Your task to perform on an android device: Open ESPN.com Image 0: 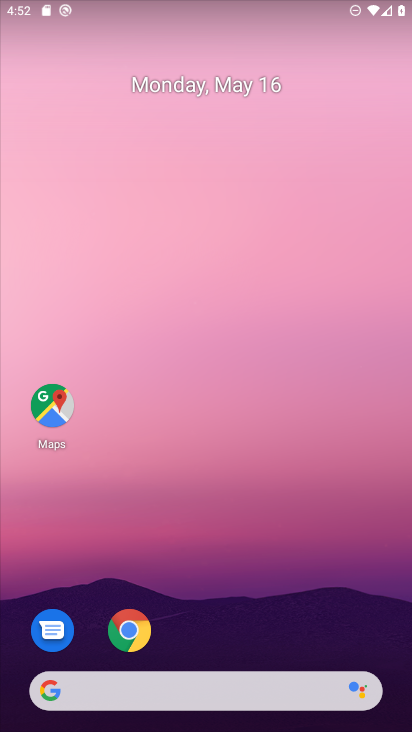
Step 0: press home button
Your task to perform on an android device: Open ESPN.com Image 1: 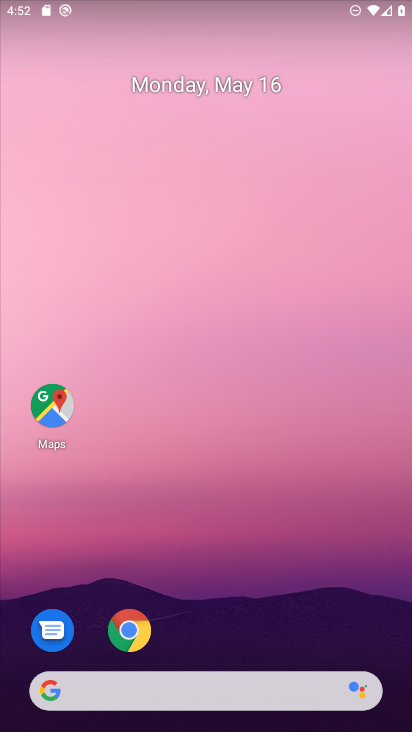
Step 1: click (139, 640)
Your task to perform on an android device: Open ESPN.com Image 2: 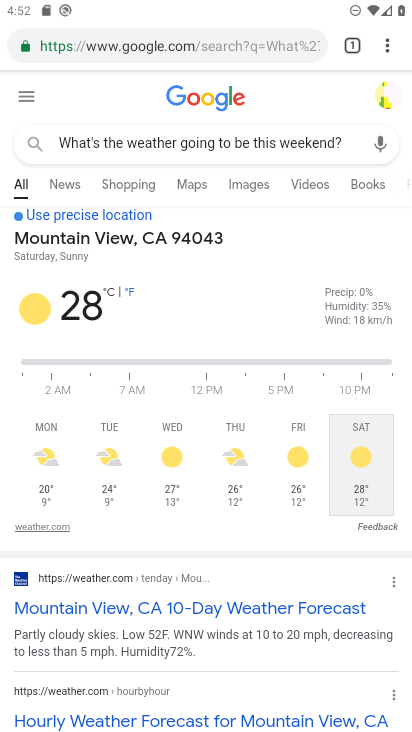
Step 2: click (309, 45)
Your task to perform on an android device: Open ESPN.com Image 3: 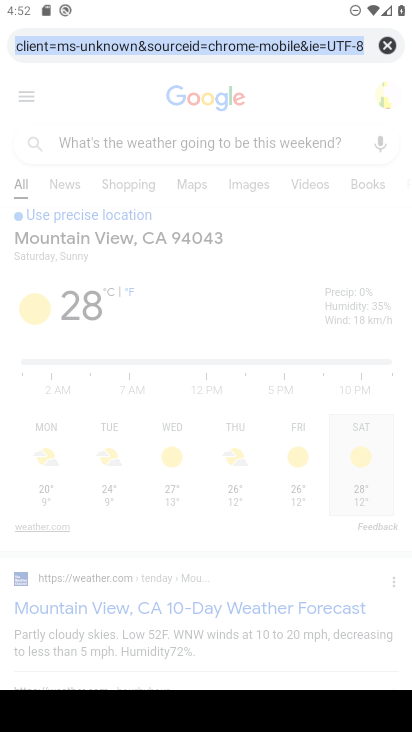
Step 3: click (377, 44)
Your task to perform on an android device: Open ESPN.com Image 4: 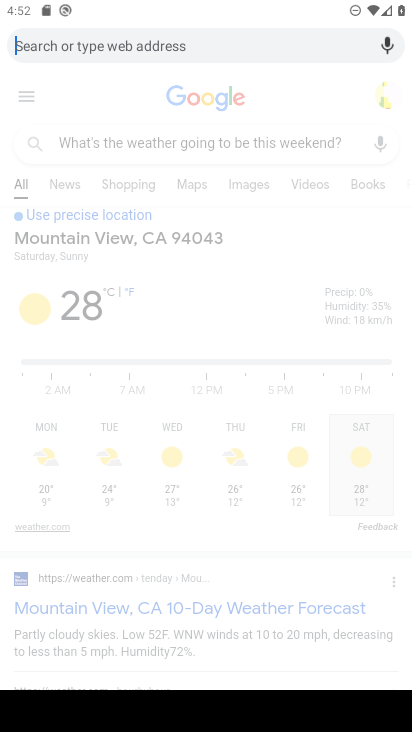
Step 4: type " ESPN.com"
Your task to perform on an android device: Open ESPN.com Image 5: 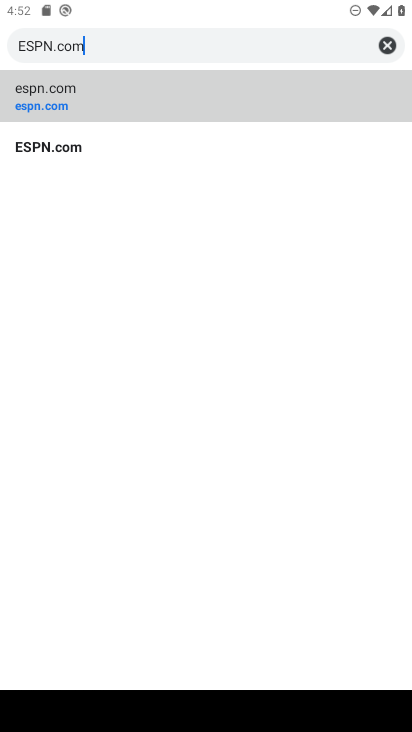
Step 5: type ""
Your task to perform on an android device: Open ESPN.com Image 6: 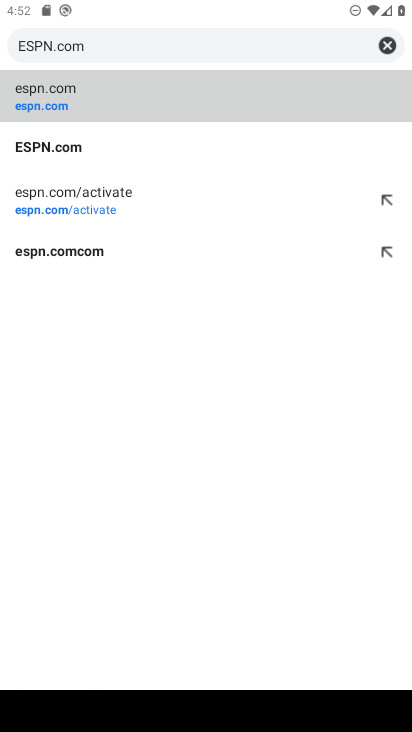
Step 6: click (101, 81)
Your task to perform on an android device: Open ESPN.com Image 7: 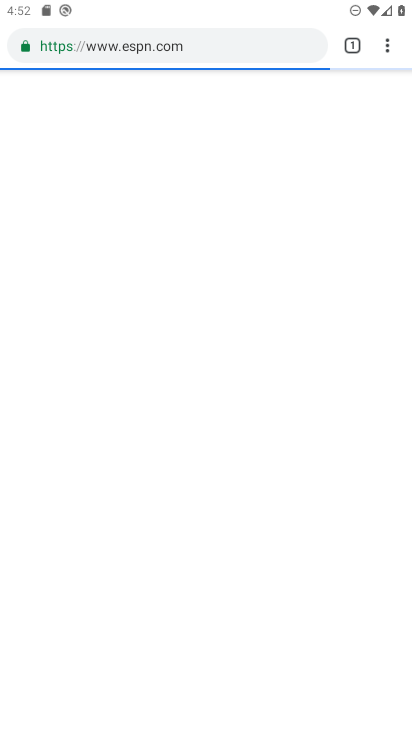
Step 7: task complete